Your task to perform on an android device: clear all cookies in the chrome app Image 0: 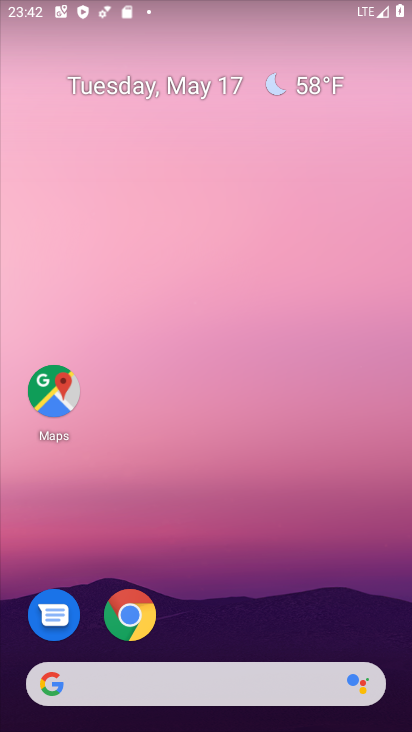
Step 0: click (145, 624)
Your task to perform on an android device: clear all cookies in the chrome app Image 1: 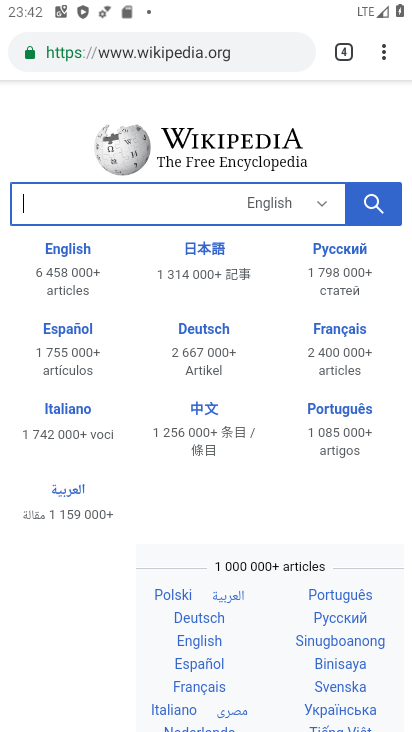
Step 1: drag from (382, 52) to (213, 285)
Your task to perform on an android device: clear all cookies in the chrome app Image 2: 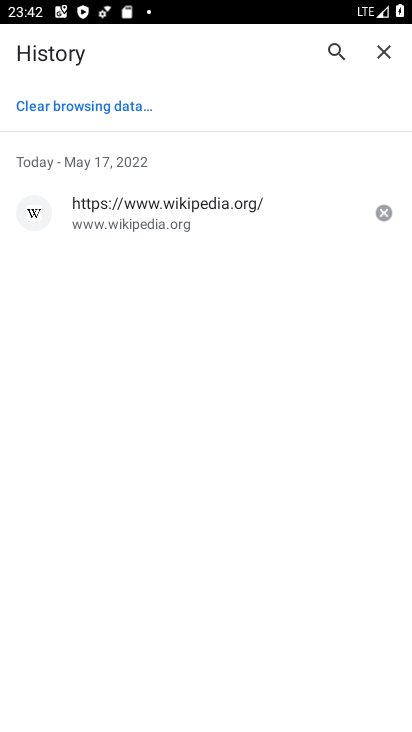
Step 2: click (61, 96)
Your task to perform on an android device: clear all cookies in the chrome app Image 3: 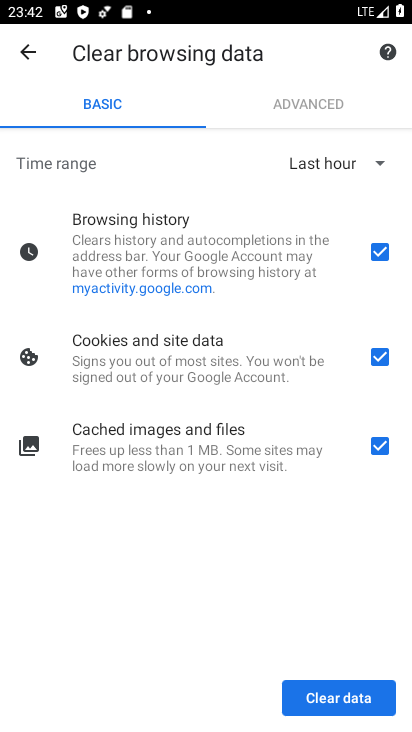
Step 3: click (318, 688)
Your task to perform on an android device: clear all cookies in the chrome app Image 4: 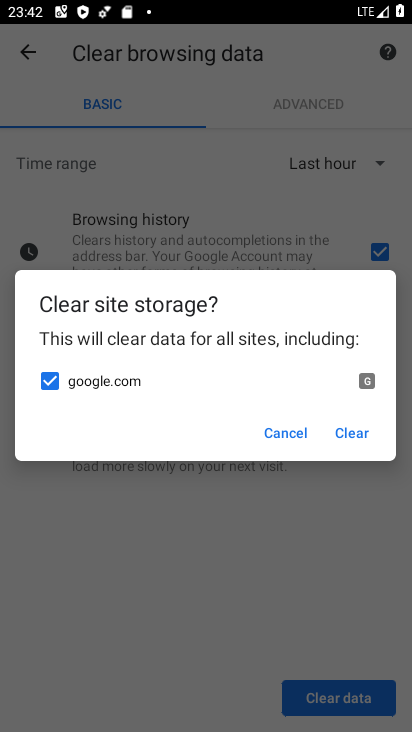
Step 4: click (337, 427)
Your task to perform on an android device: clear all cookies in the chrome app Image 5: 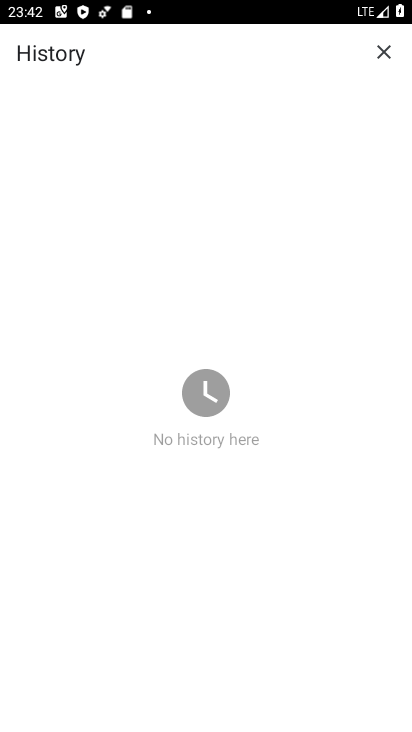
Step 5: task complete